Your task to perform on an android device: open chrome and create a bookmark for the current page Image 0: 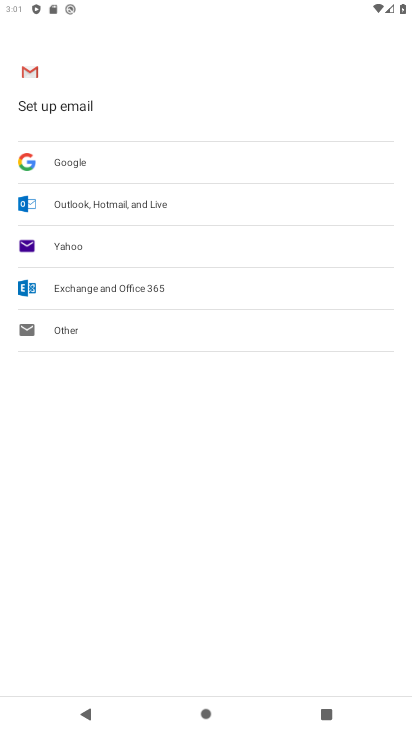
Step 0: press home button
Your task to perform on an android device: open chrome and create a bookmark for the current page Image 1: 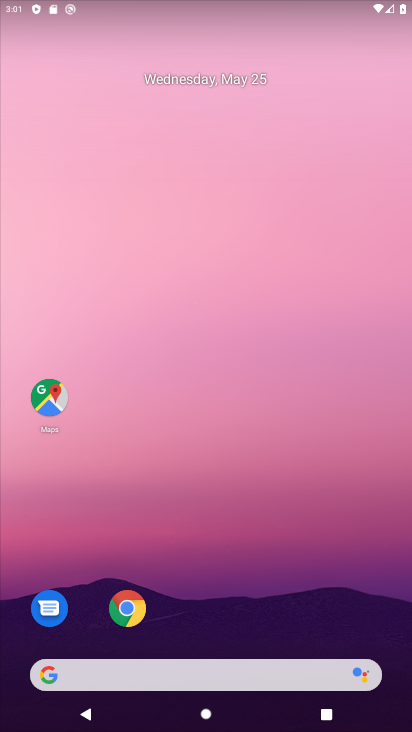
Step 1: drag from (209, 546) to (211, 143)
Your task to perform on an android device: open chrome and create a bookmark for the current page Image 2: 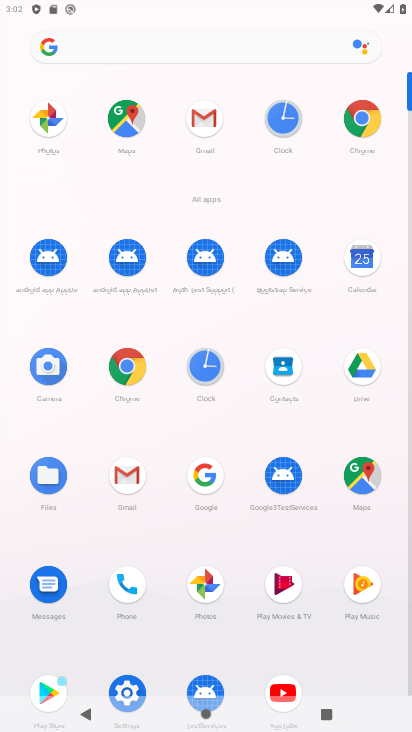
Step 2: click (137, 365)
Your task to perform on an android device: open chrome and create a bookmark for the current page Image 3: 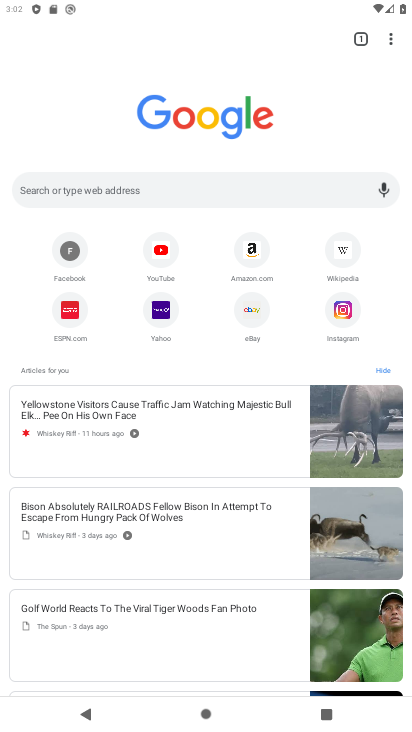
Step 3: task complete